Your task to perform on an android device: Search for jbl charge 4 on ebay, select the first entry, and add it to the cart. Image 0: 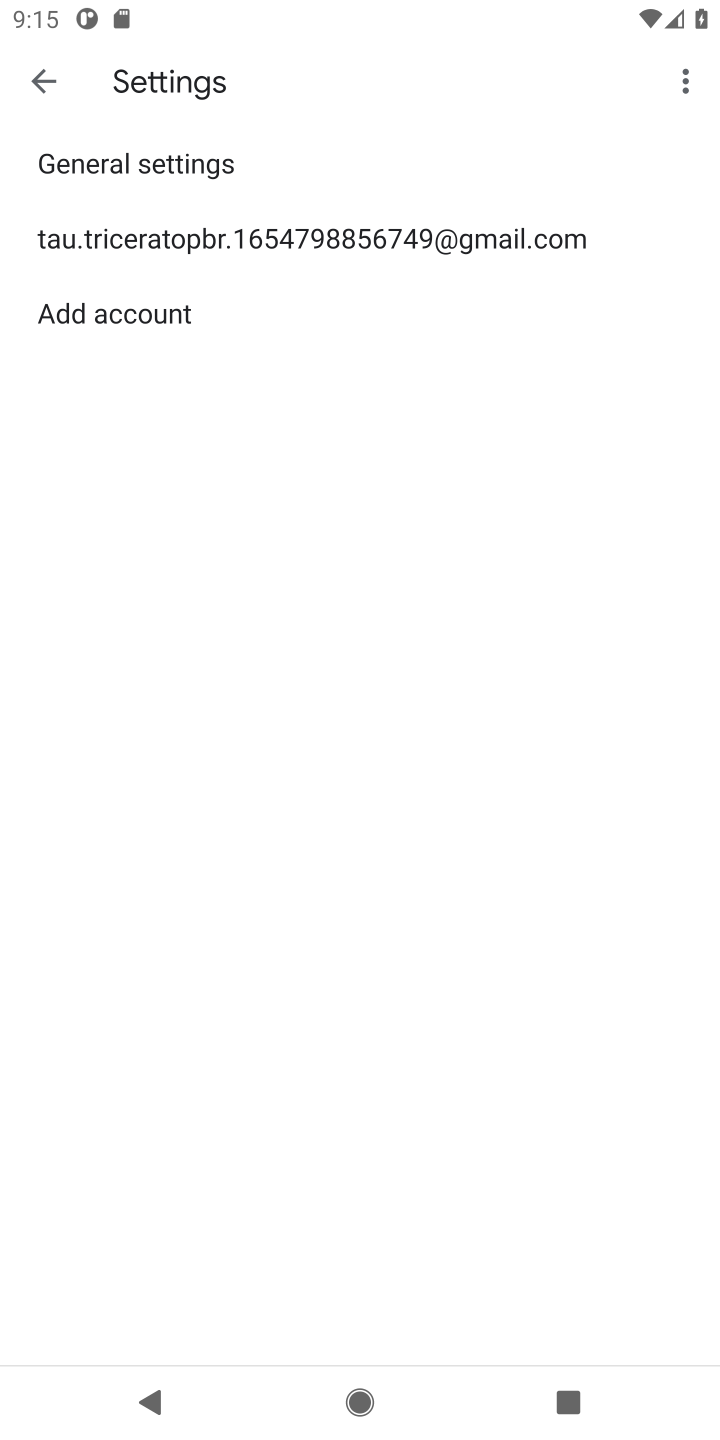
Step 0: press home button
Your task to perform on an android device: Search for jbl charge 4 on ebay, select the first entry, and add it to the cart. Image 1: 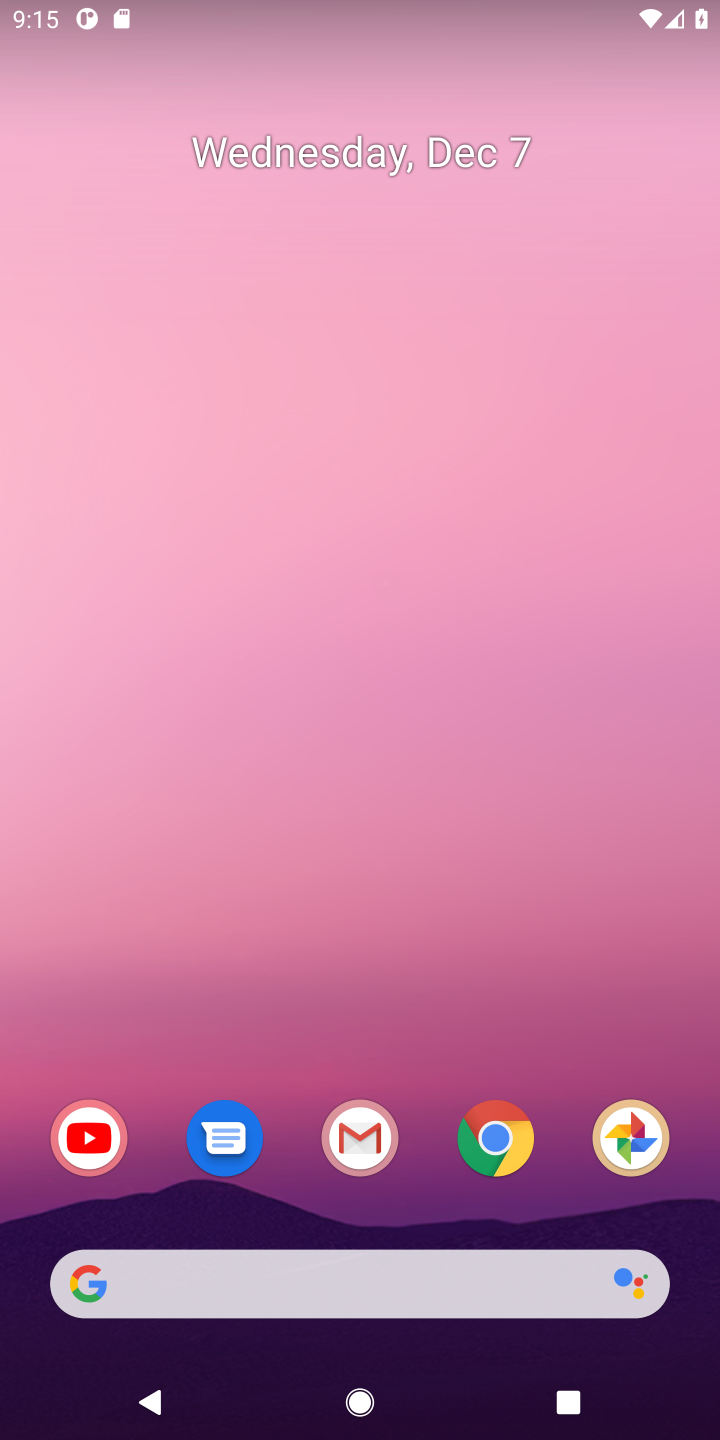
Step 1: click (120, 1284)
Your task to perform on an android device: Search for jbl charge 4 on ebay, select the first entry, and add it to the cart. Image 2: 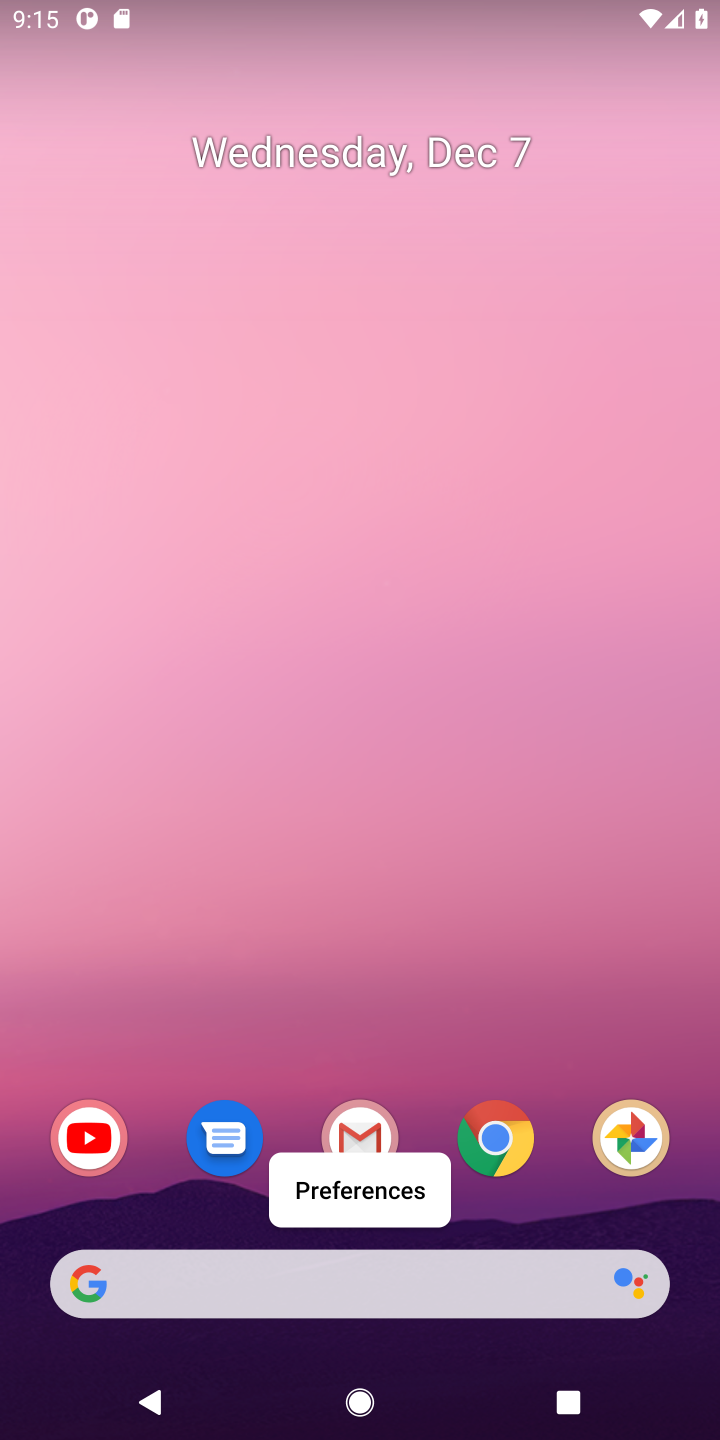
Step 2: click (129, 1283)
Your task to perform on an android device: Search for jbl charge 4 on ebay, select the first entry, and add it to the cart. Image 3: 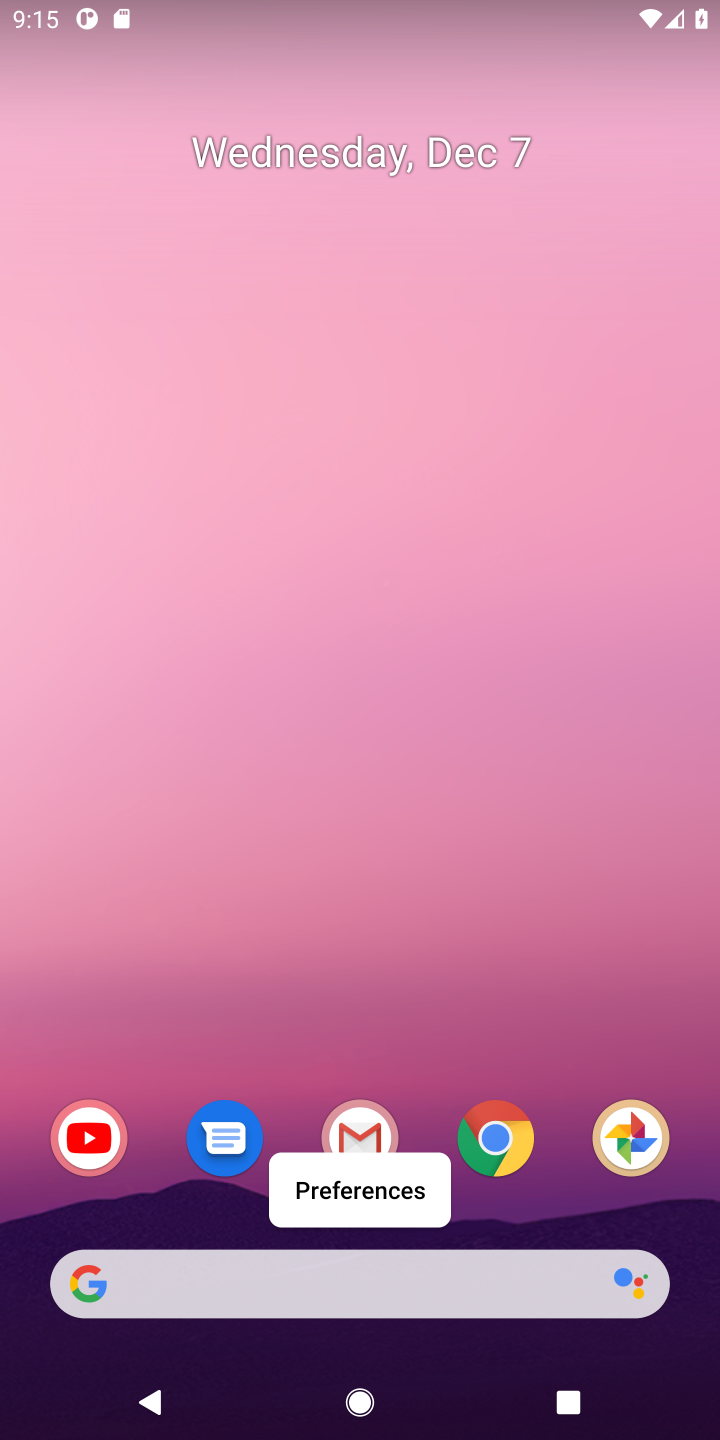
Step 3: click (129, 1274)
Your task to perform on an android device: Search for jbl charge 4 on ebay, select the first entry, and add it to the cart. Image 4: 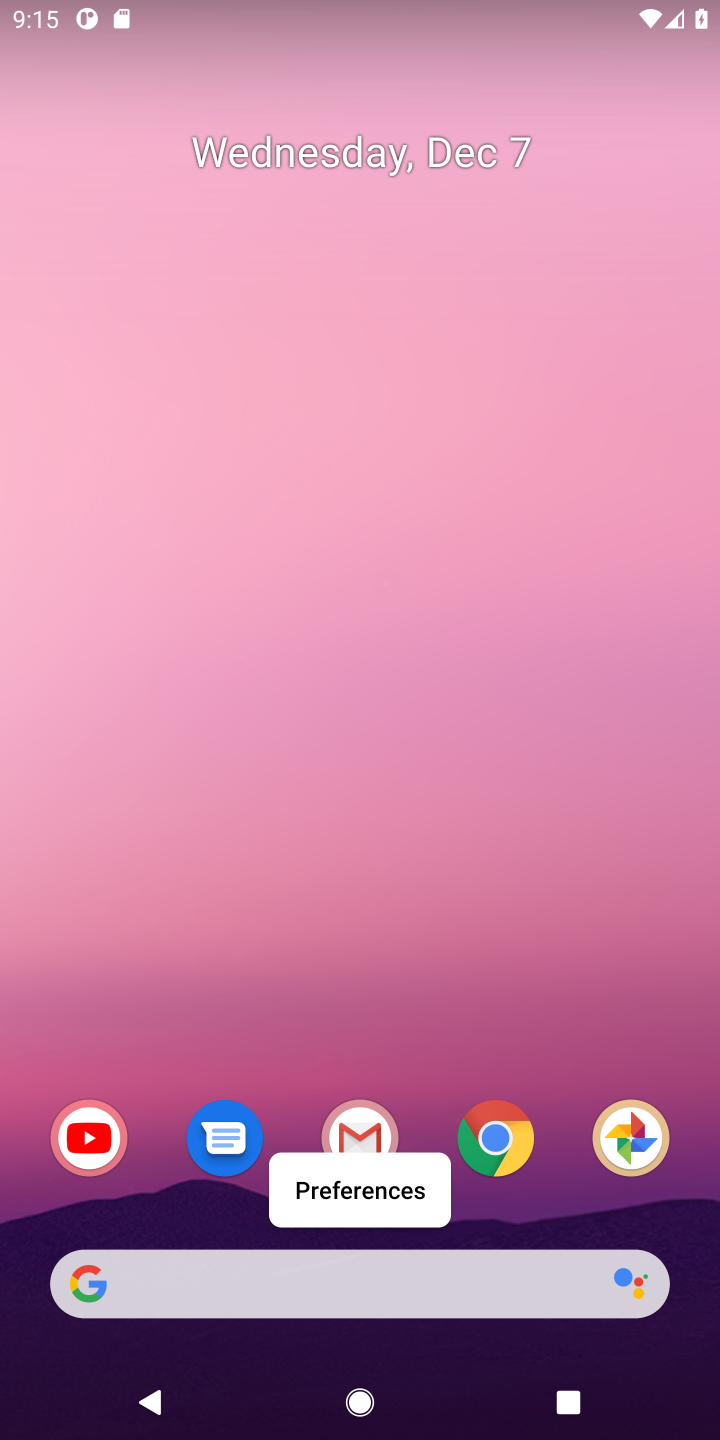
Step 4: click (143, 1296)
Your task to perform on an android device: Search for jbl charge 4 on ebay, select the first entry, and add it to the cart. Image 5: 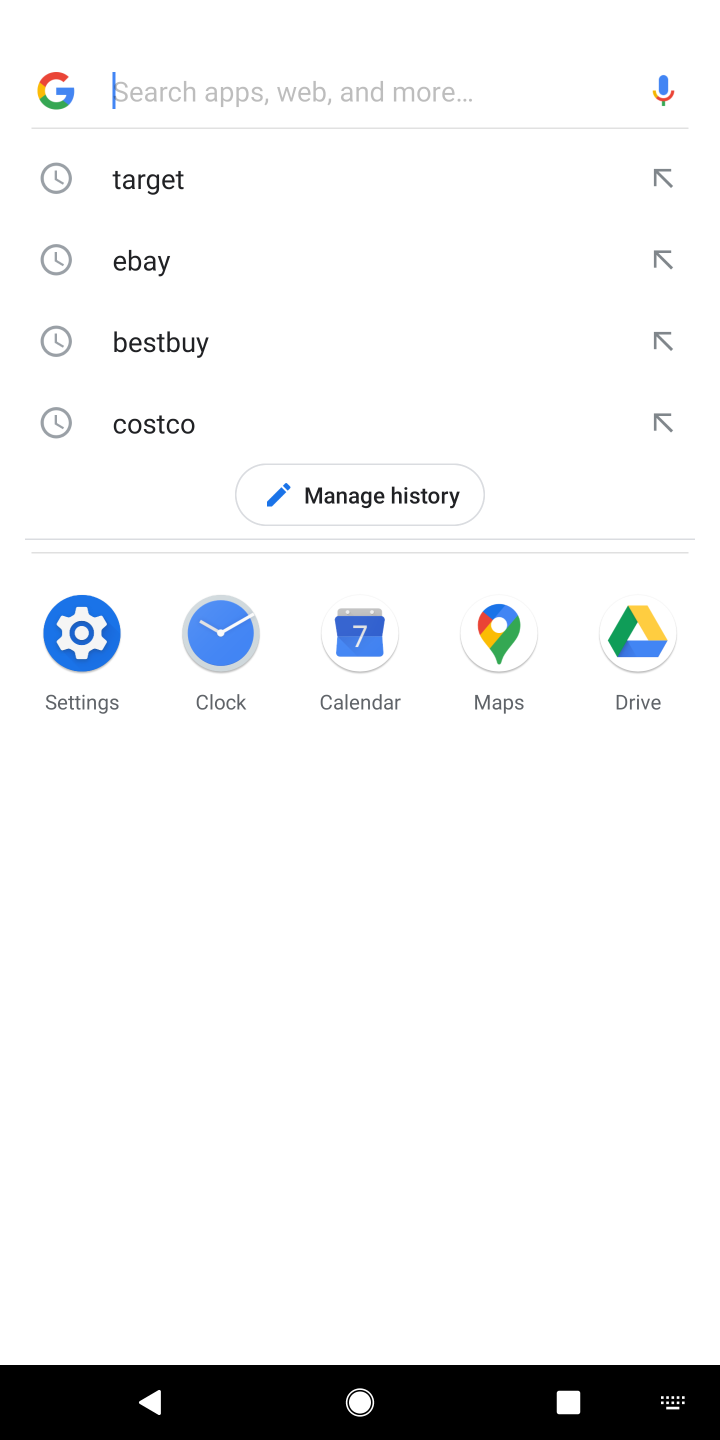
Step 5: type "ebay"
Your task to perform on an android device: Search for jbl charge 4 on ebay, select the first entry, and add it to the cart. Image 6: 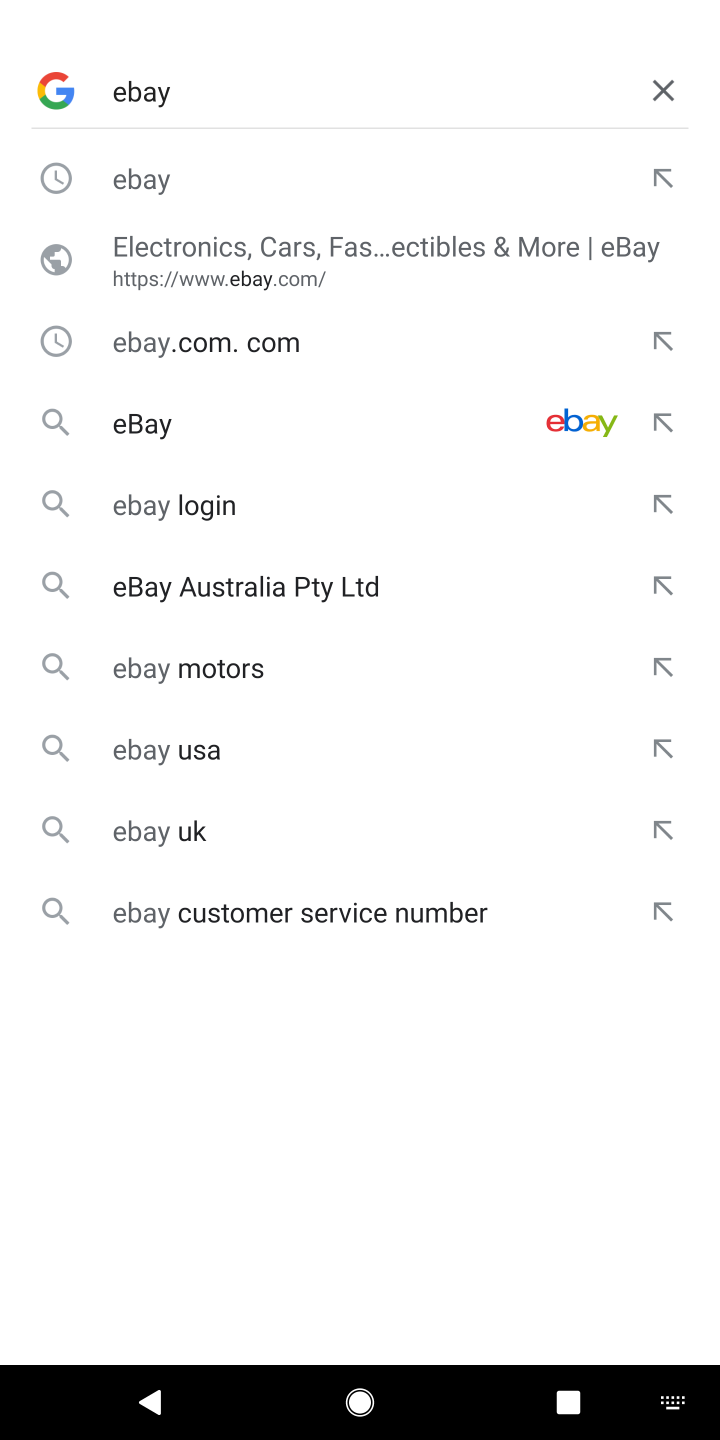
Step 6: press enter
Your task to perform on an android device: Search for jbl charge 4 on ebay, select the first entry, and add it to the cart. Image 7: 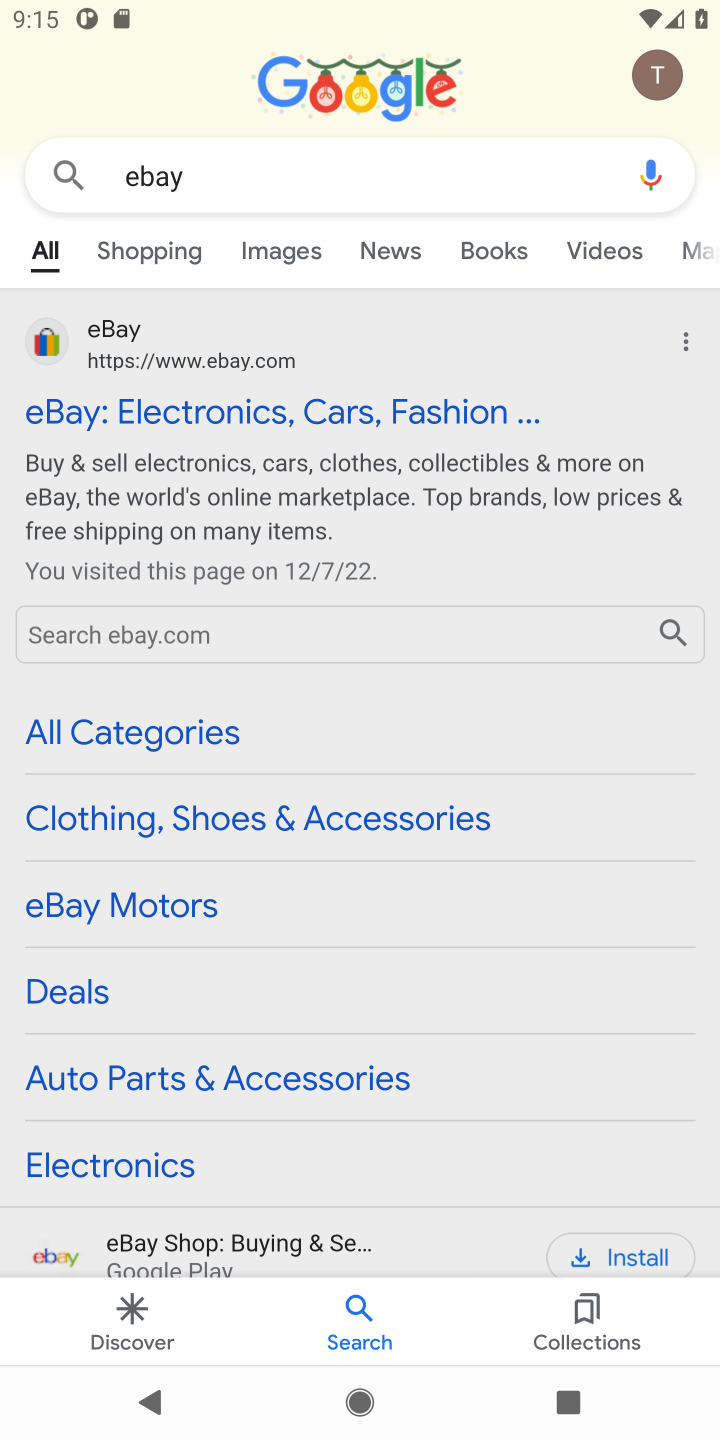
Step 7: click (392, 410)
Your task to perform on an android device: Search for jbl charge 4 on ebay, select the first entry, and add it to the cart. Image 8: 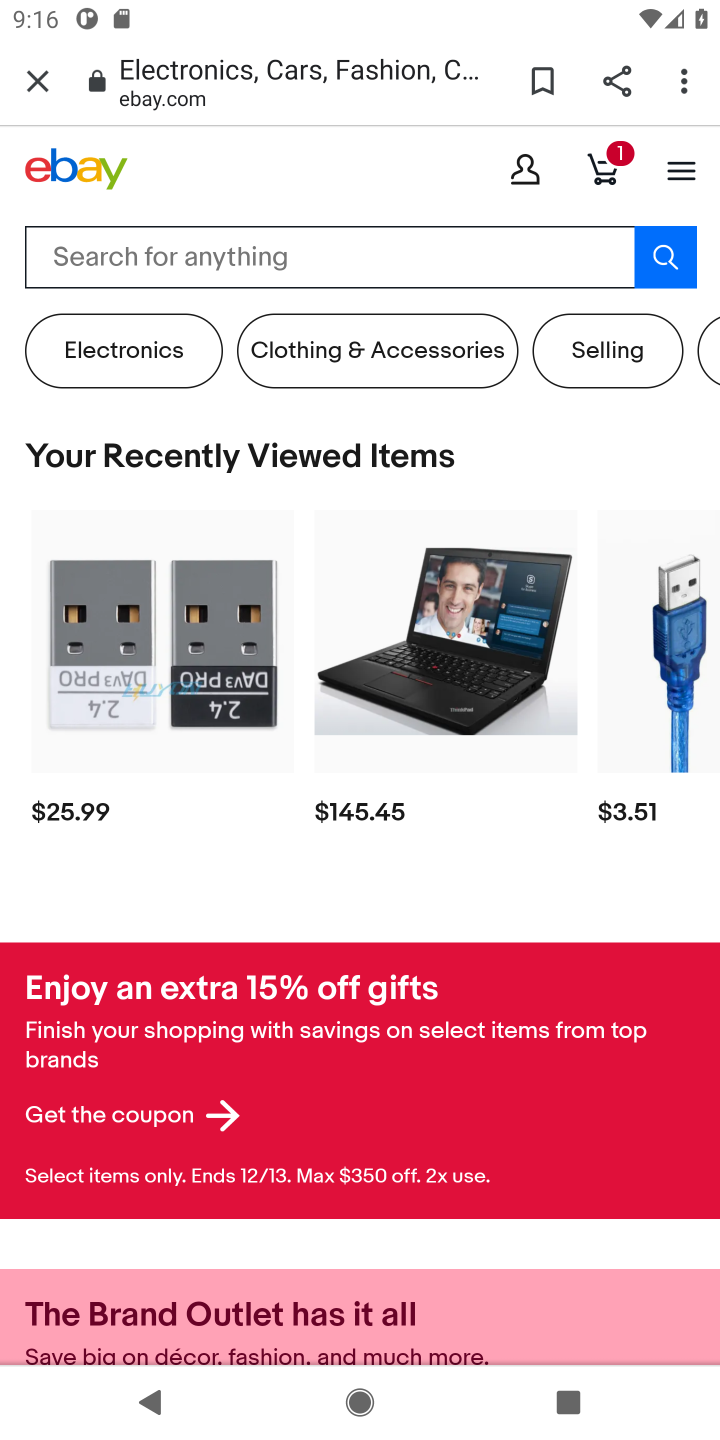
Step 8: click (118, 249)
Your task to perform on an android device: Search for jbl charge 4 on ebay, select the first entry, and add it to the cart. Image 9: 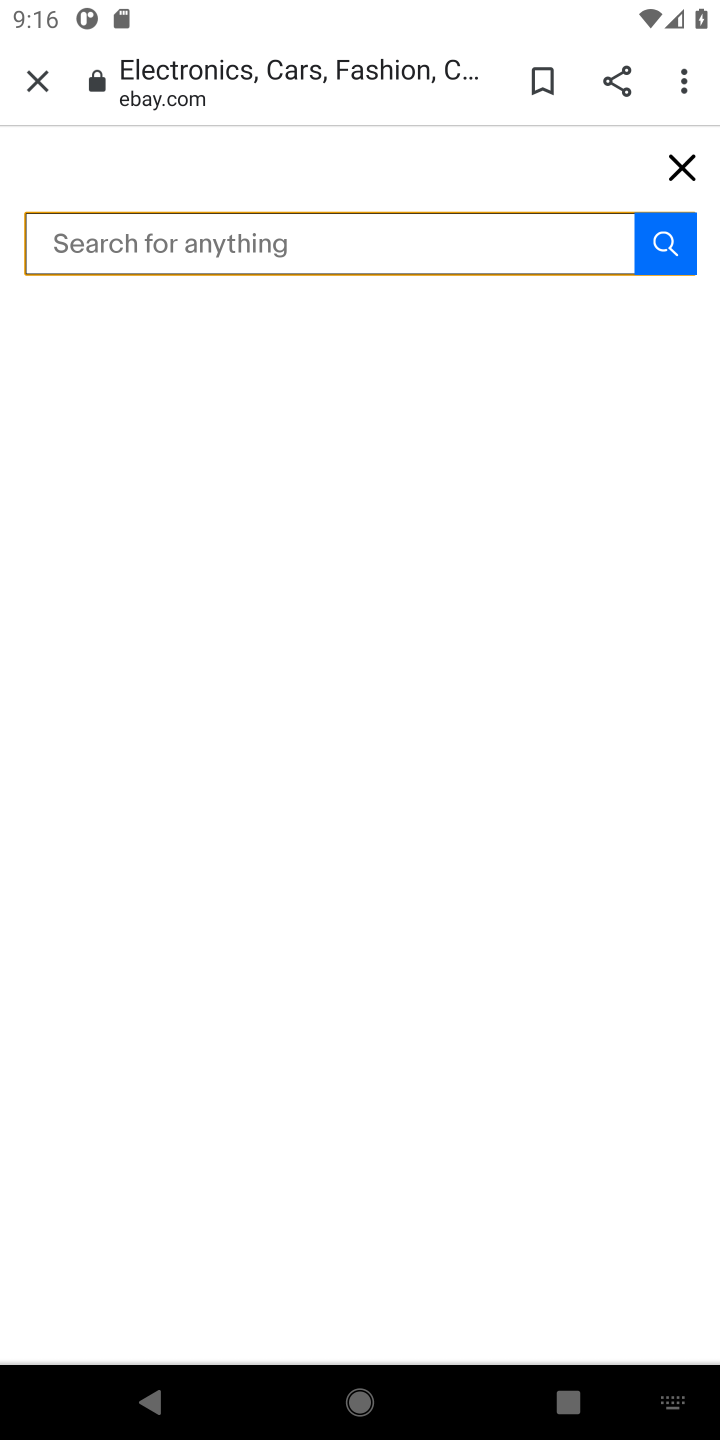
Step 9: type " jbl charge 4"
Your task to perform on an android device: Search for jbl charge 4 on ebay, select the first entry, and add it to the cart. Image 10: 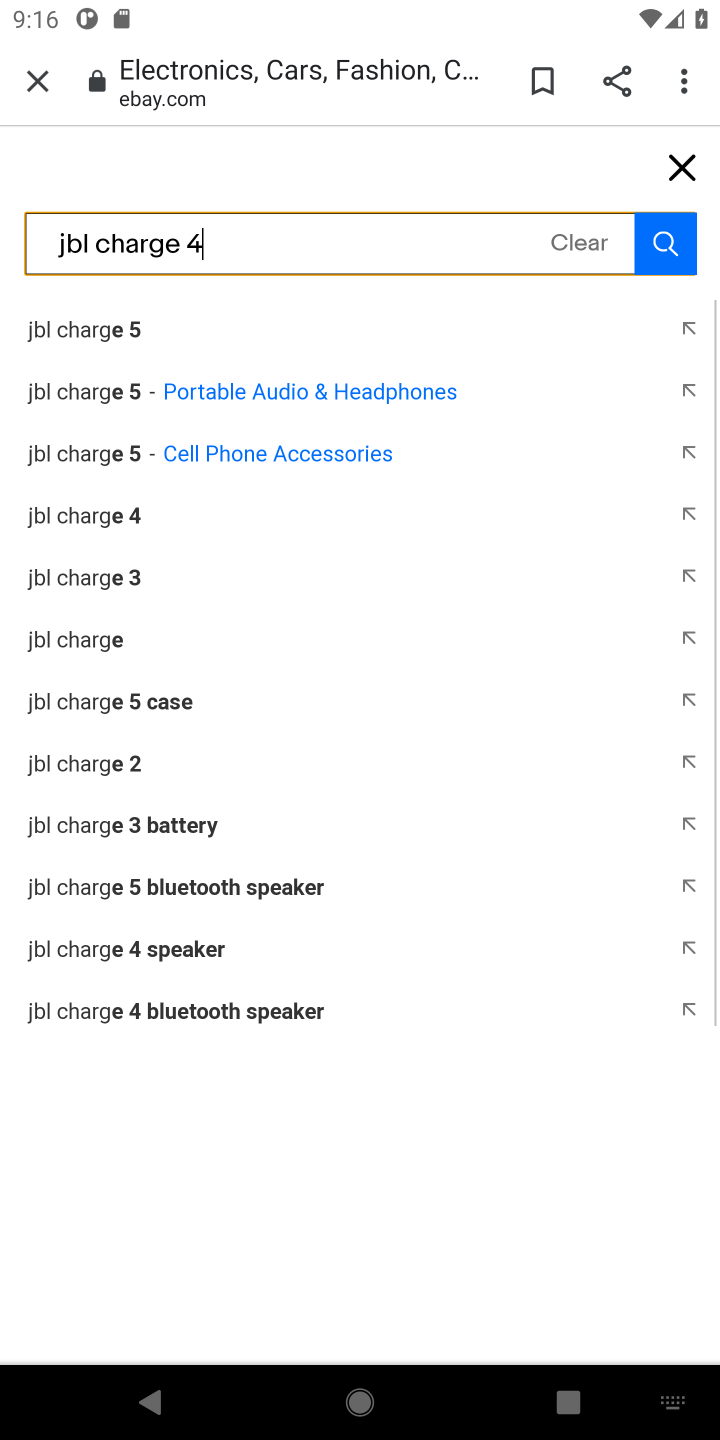
Step 10: press enter
Your task to perform on an android device: Search for jbl charge 4 on ebay, select the first entry, and add it to the cart. Image 11: 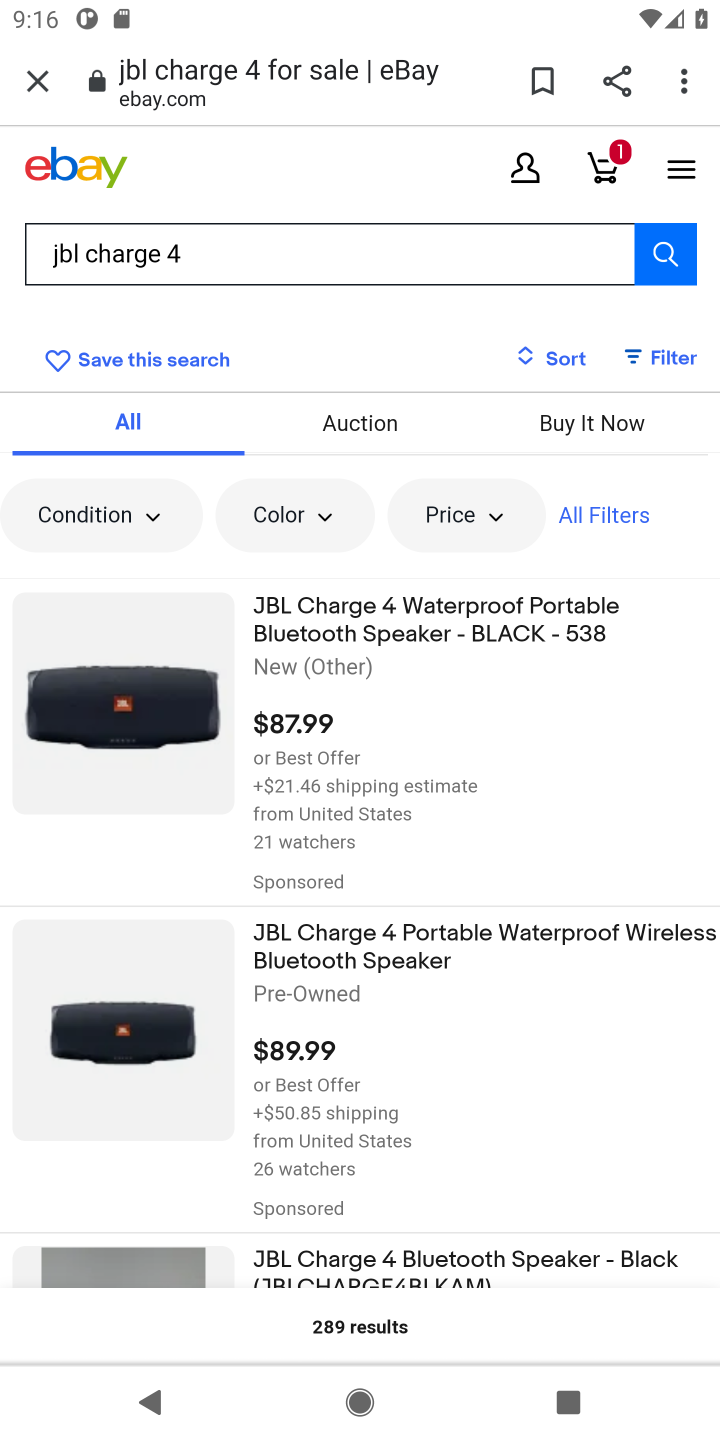
Step 11: click (359, 632)
Your task to perform on an android device: Search for jbl charge 4 on ebay, select the first entry, and add it to the cart. Image 12: 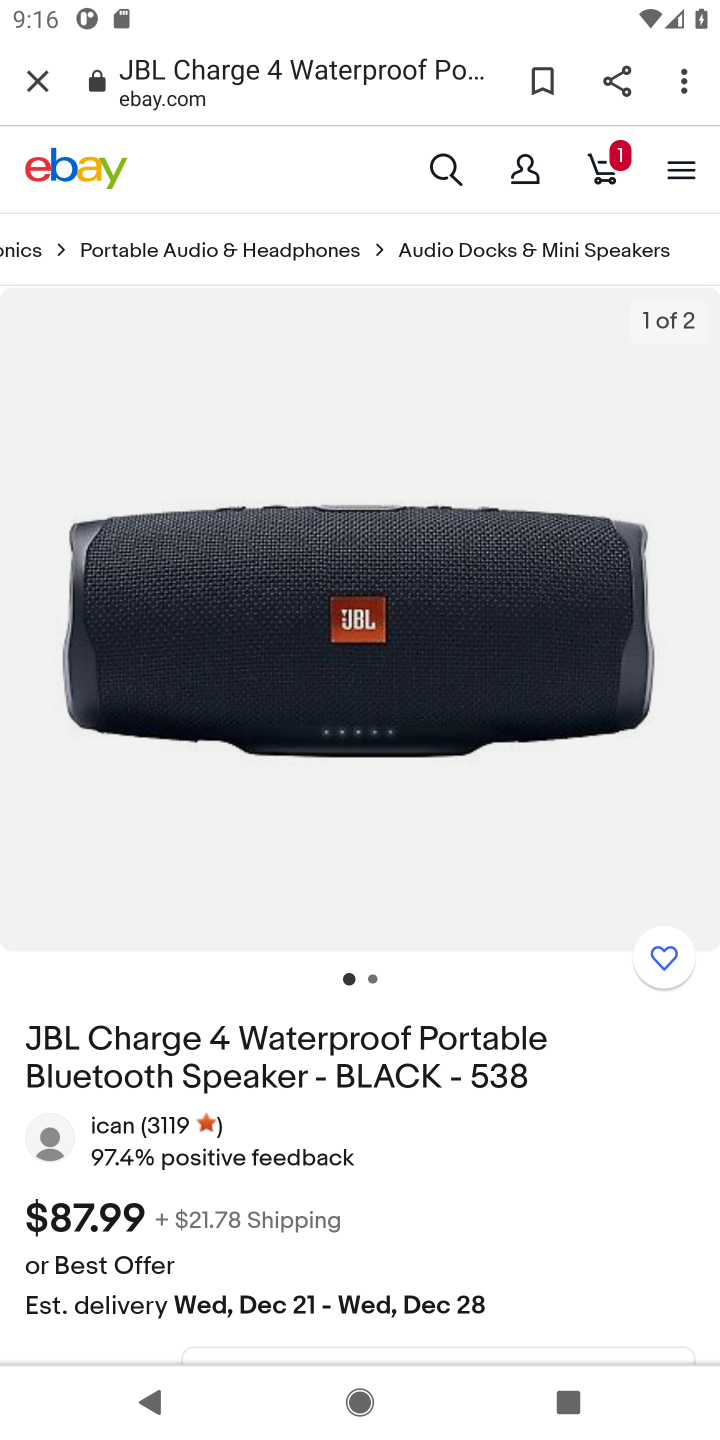
Step 12: drag from (469, 1147) to (541, 621)
Your task to perform on an android device: Search for jbl charge 4 on ebay, select the first entry, and add it to the cart. Image 13: 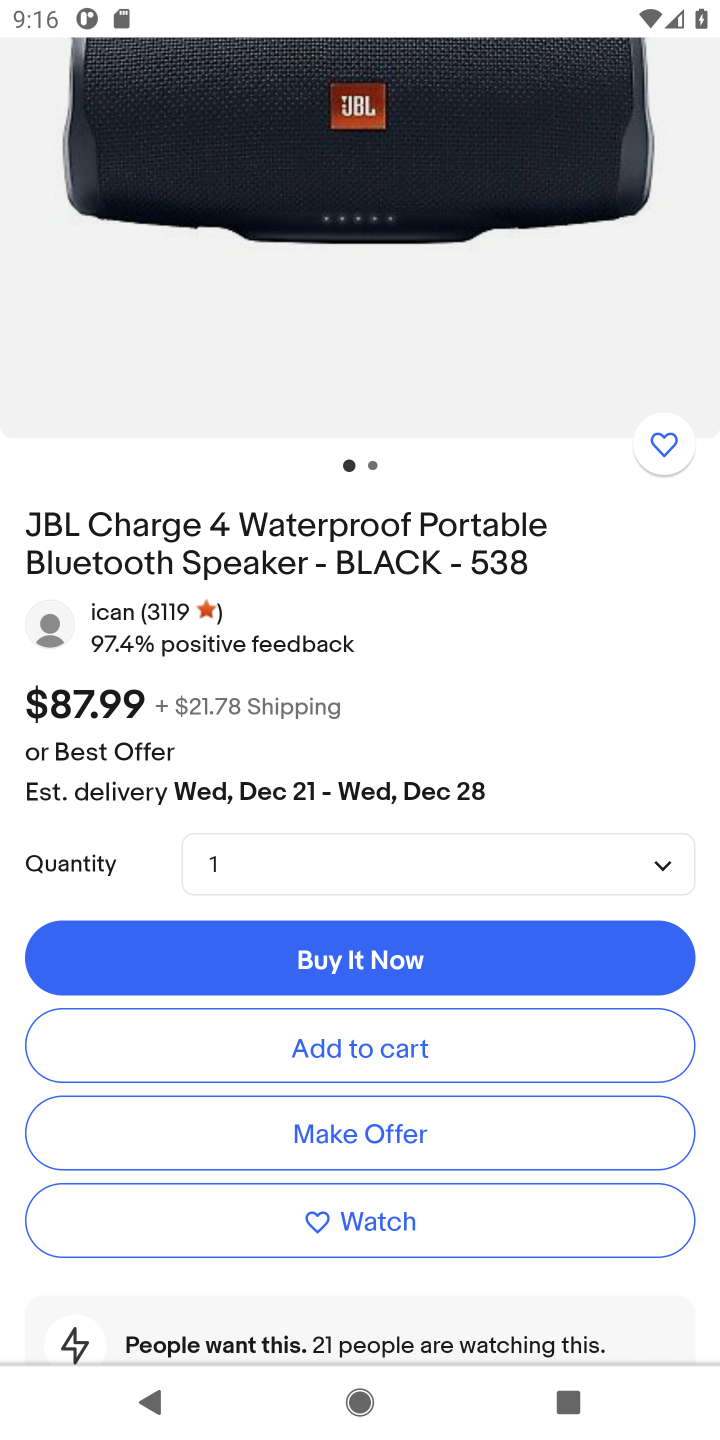
Step 13: drag from (517, 970) to (545, 423)
Your task to perform on an android device: Search for jbl charge 4 on ebay, select the first entry, and add it to the cart. Image 14: 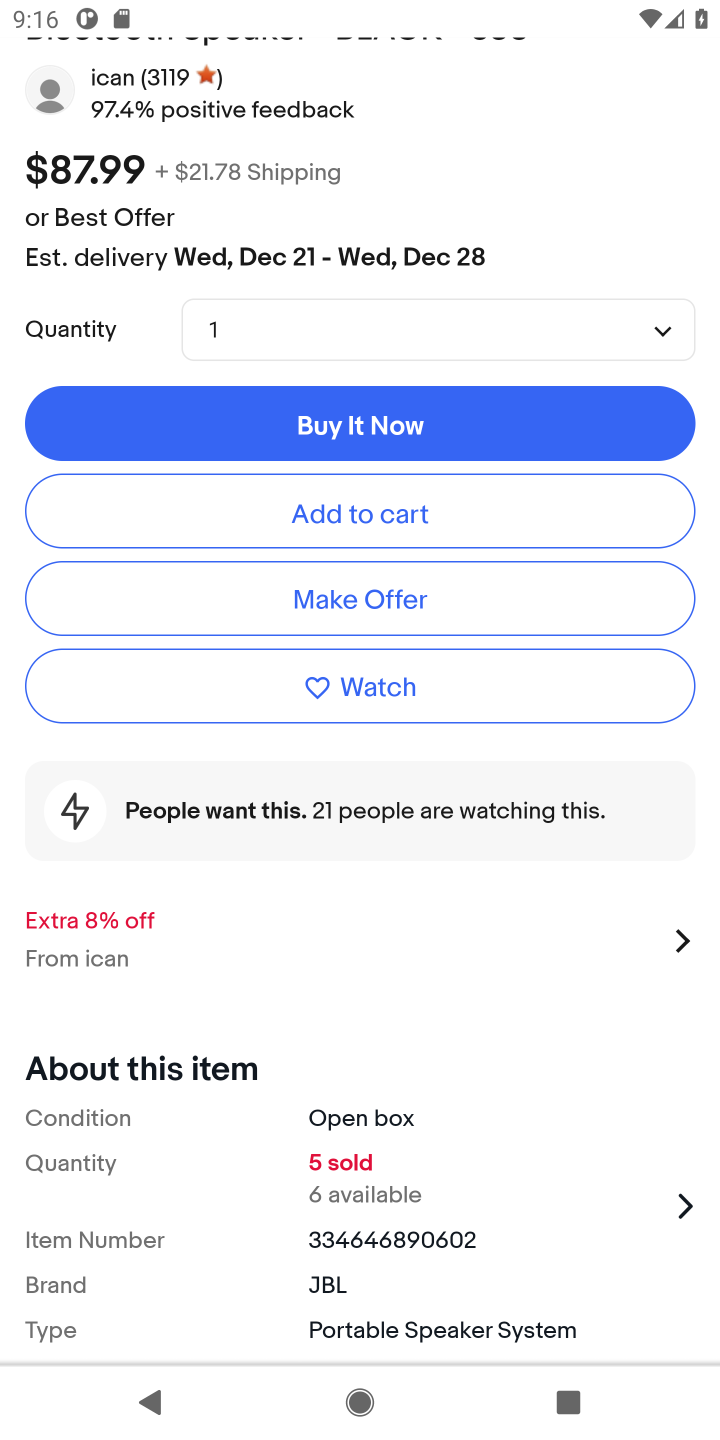
Step 14: click (325, 508)
Your task to perform on an android device: Search for jbl charge 4 on ebay, select the first entry, and add it to the cart. Image 15: 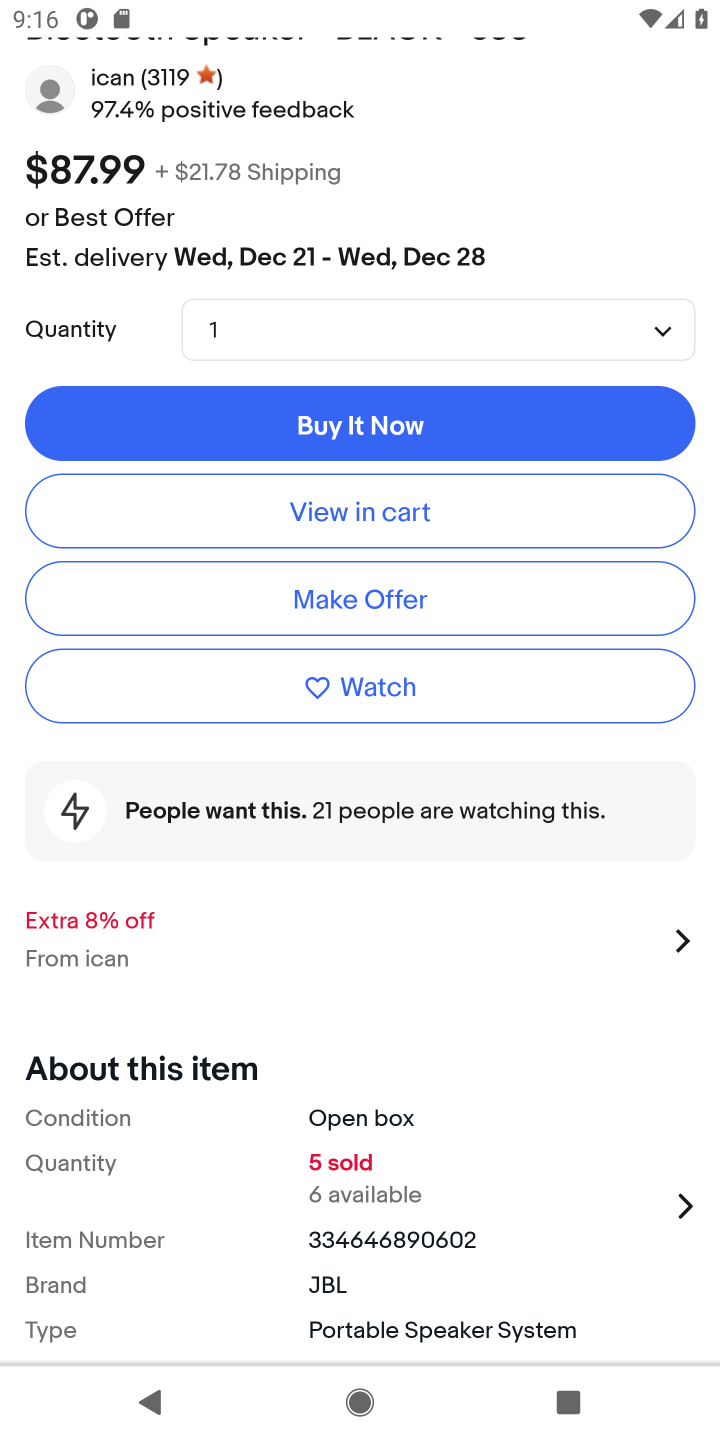
Step 15: task complete